Your task to perform on an android device: turn off location history Image 0: 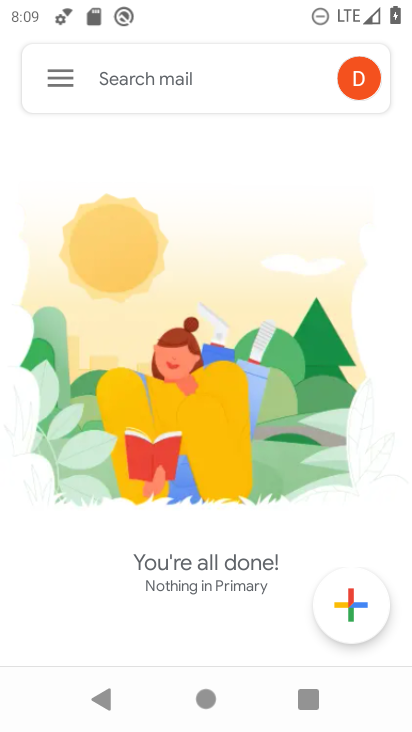
Step 0: press home button
Your task to perform on an android device: turn off location history Image 1: 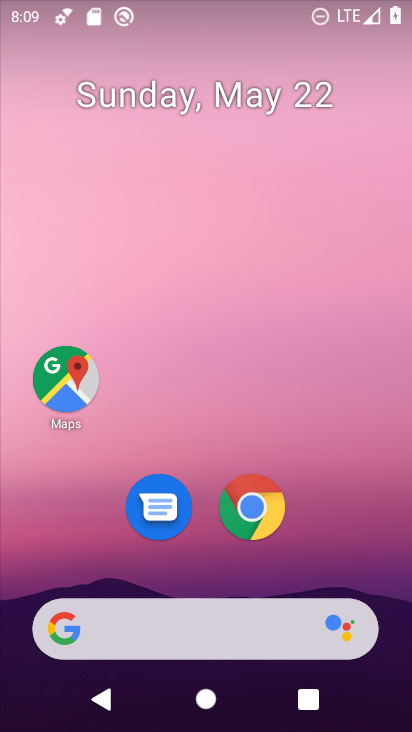
Step 1: click (81, 399)
Your task to perform on an android device: turn off location history Image 2: 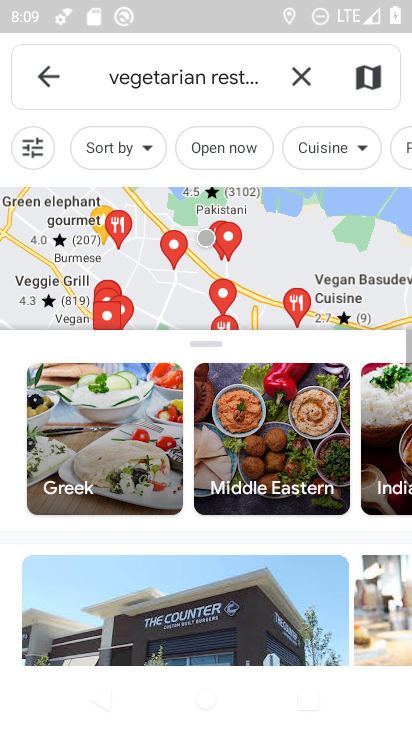
Step 2: click (303, 72)
Your task to perform on an android device: turn off location history Image 3: 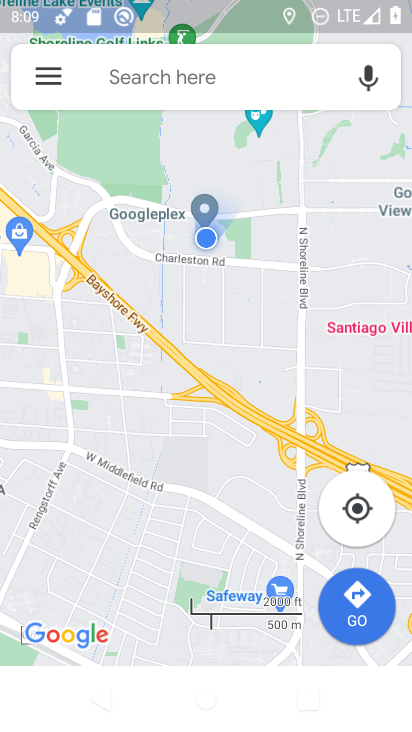
Step 3: click (47, 80)
Your task to perform on an android device: turn off location history Image 4: 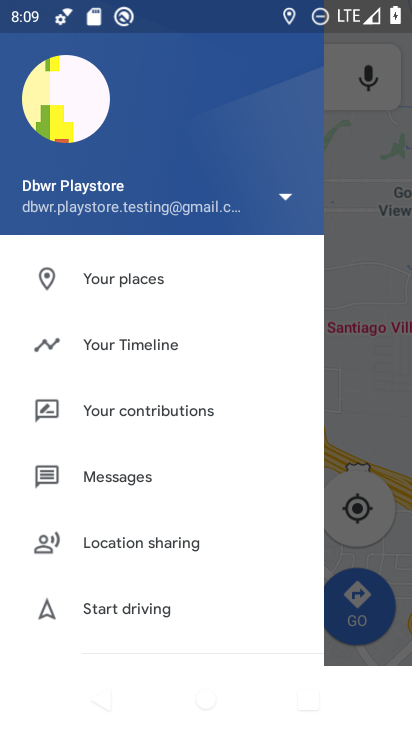
Step 4: click (208, 347)
Your task to perform on an android device: turn off location history Image 5: 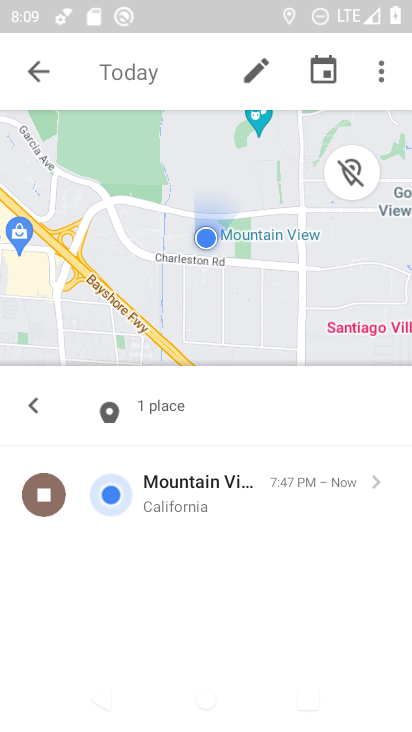
Step 5: click (389, 70)
Your task to perform on an android device: turn off location history Image 6: 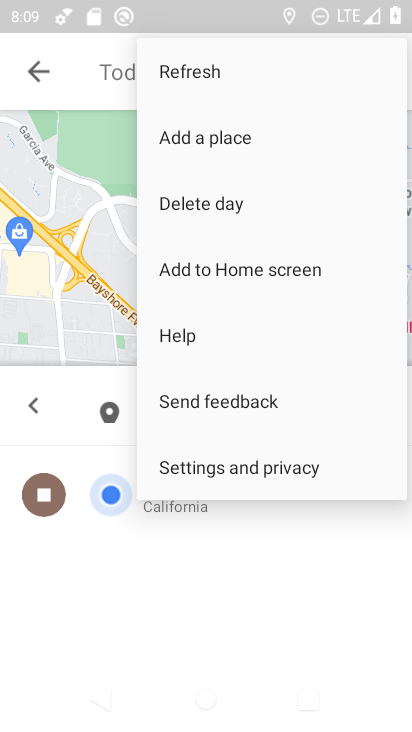
Step 6: click (293, 479)
Your task to perform on an android device: turn off location history Image 7: 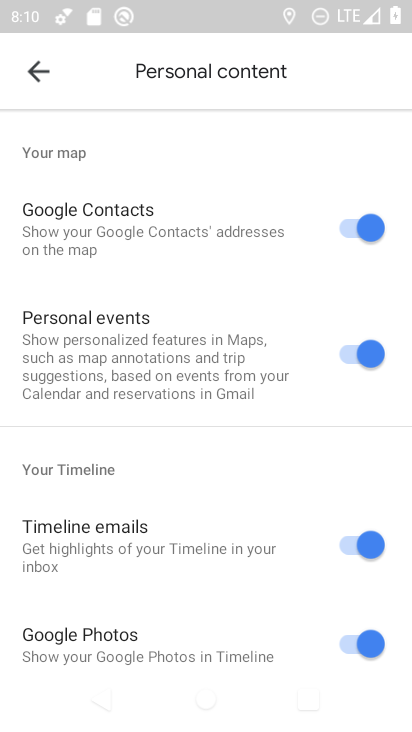
Step 7: drag from (230, 635) to (145, 30)
Your task to perform on an android device: turn off location history Image 8: 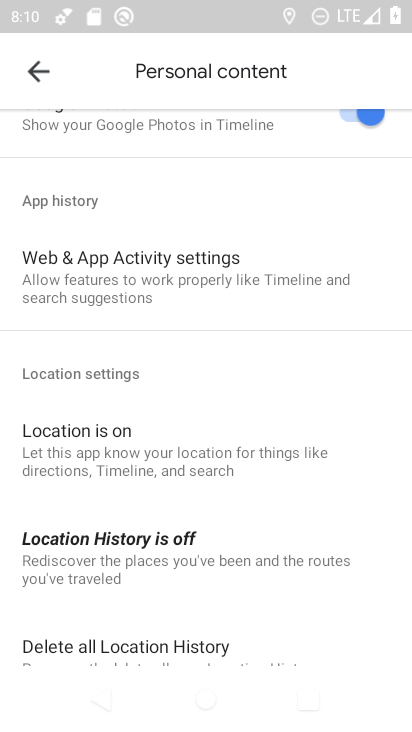
Step 8: click (199, 555)
Your task to perform on an android device: turn off location history Image 9: 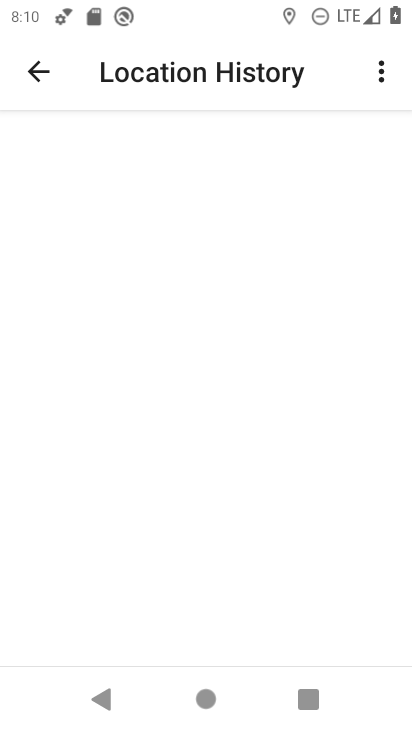
Step 9: task complete